Your task to perform on an android device: Go to accessibility settings Image 0: 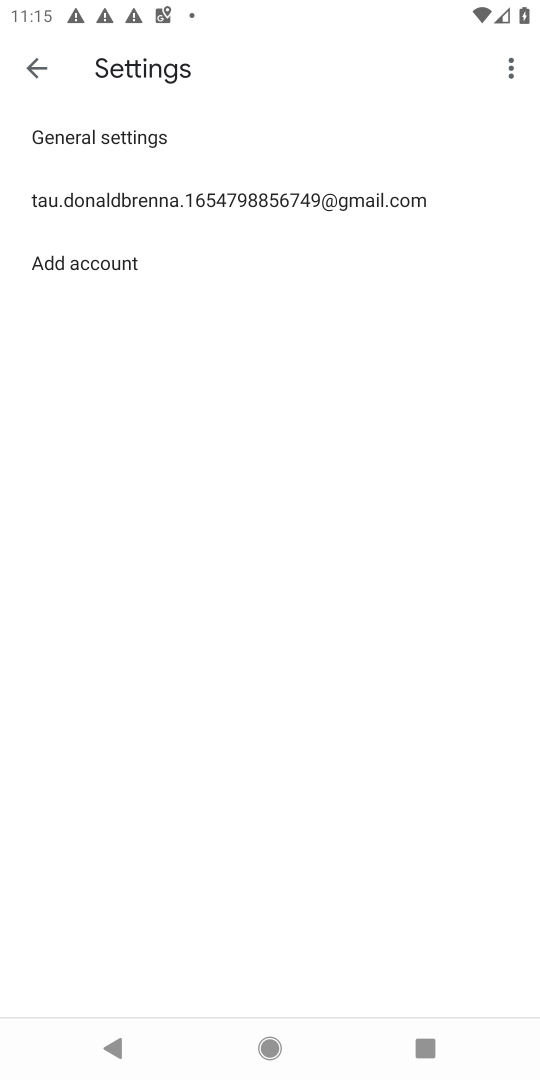
Step 0: press home button
Your task to perform on an android device: Go to accessibility settings Image 1: 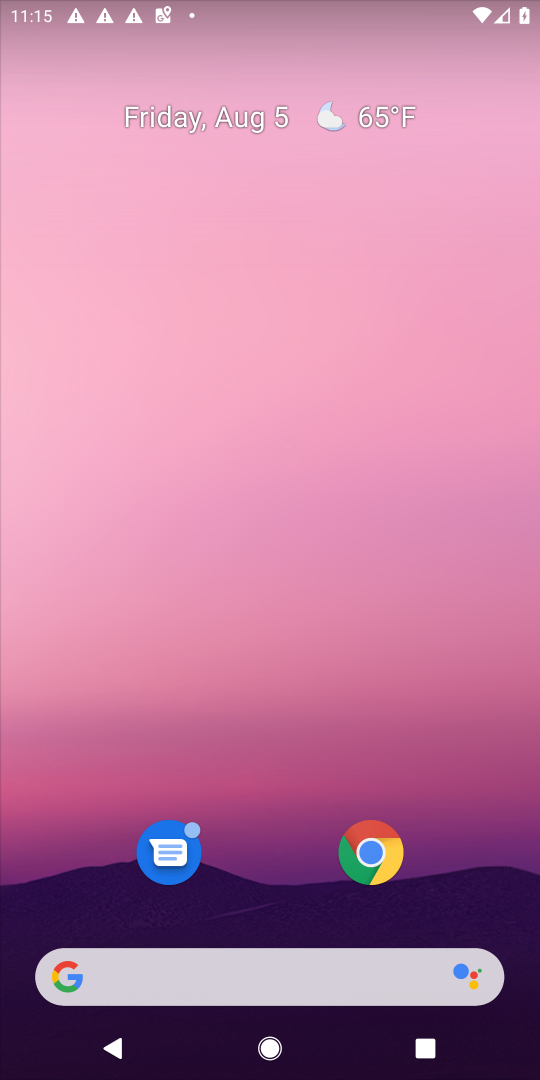
Step 1: drag from (307, 902) to (395, 225)
Your task to perform on an android device: Go to accessibility settings Image 2: 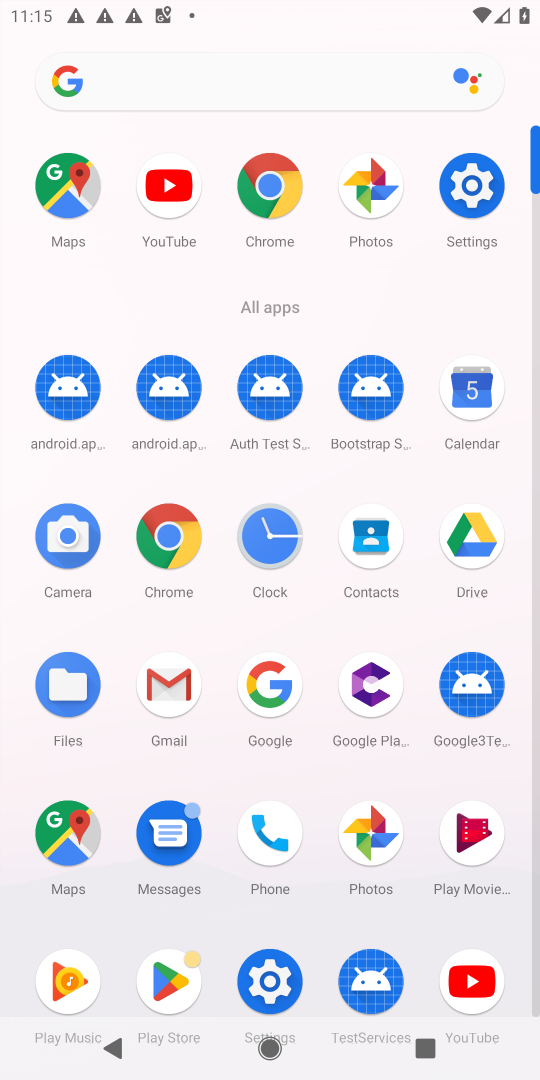
Step 2: click (453, 181)
Your task to perform on an android device: Go to accessibility settings Image 3: 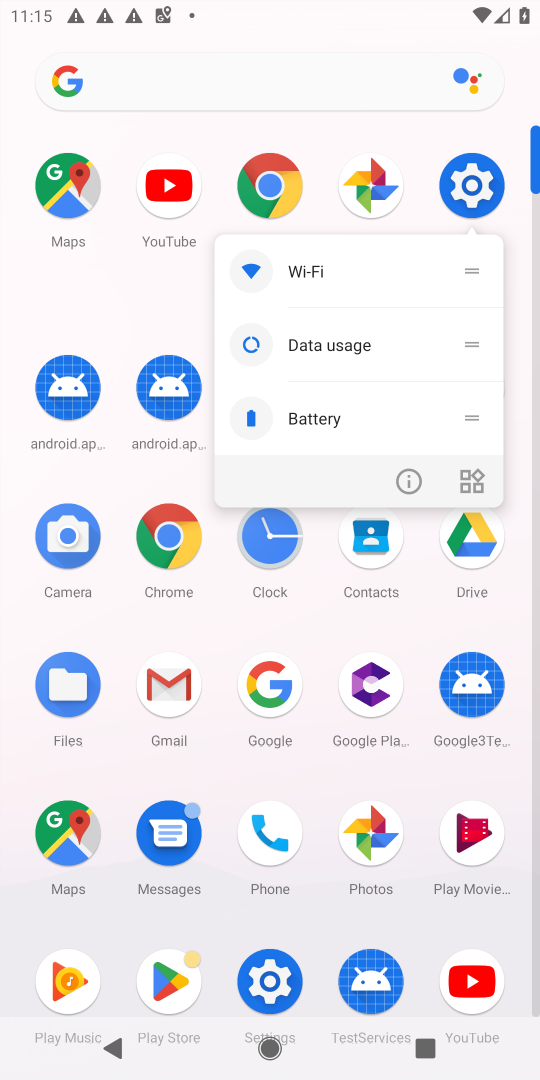
Step 3: click (477, 197)
Your task to perform on an android device: Go to accessibility settings Image 4: 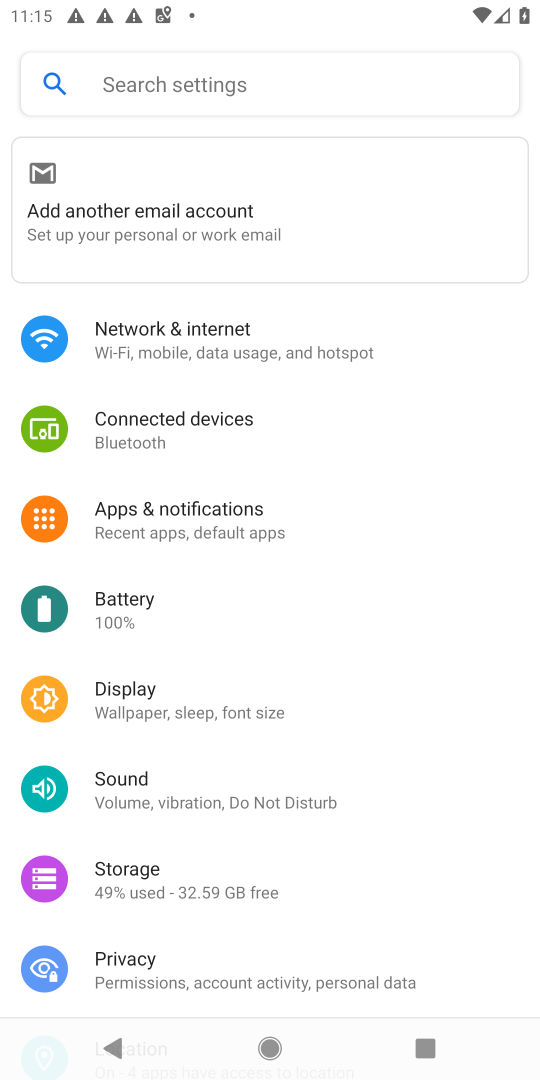
Step 4: click (185, 83)
Your task to perform on an android device: Go to accessibility settings Image 5: 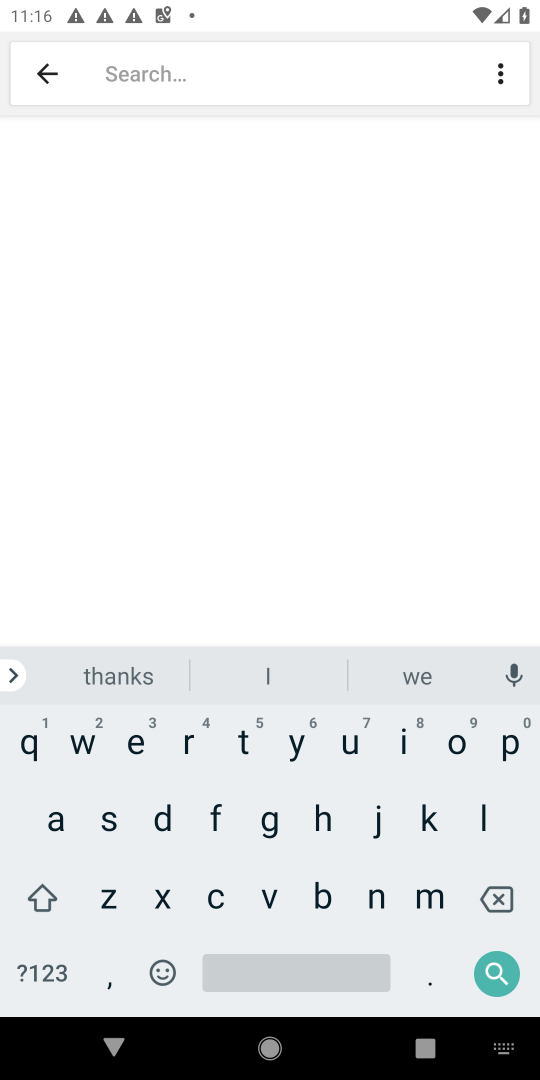
Step 5: type "ac"
Your task to perform on an android device: Go to accessibility settings Image 6: 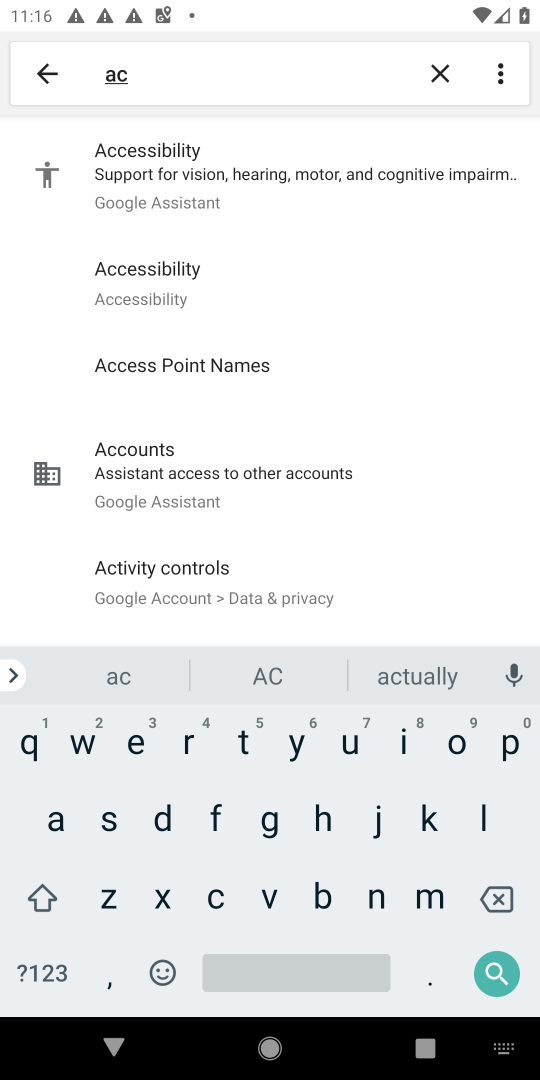
Step 6: click (172, 191)
Your task to perform on an android device: Go to accessibility settings Image 7: 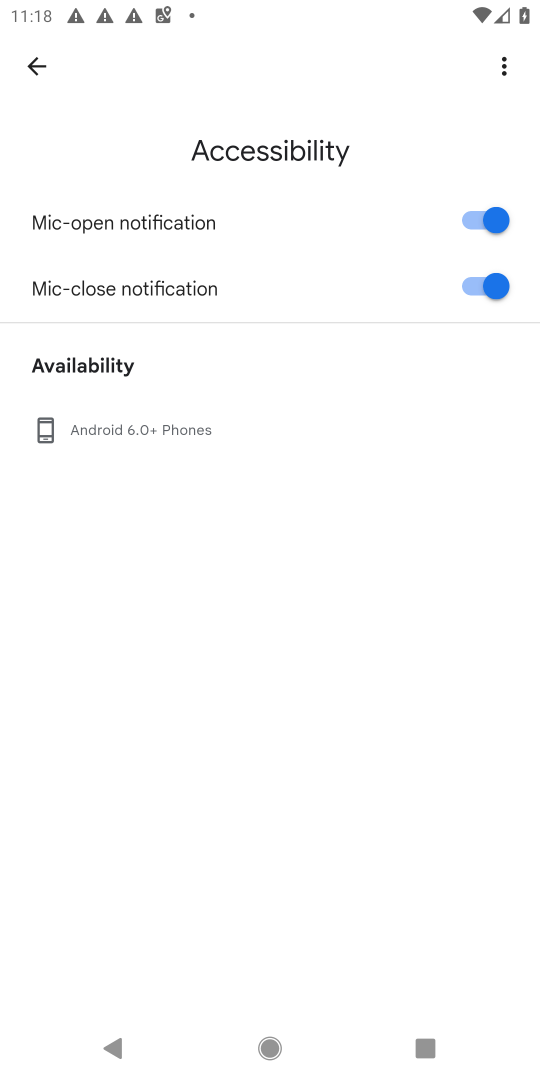
Step 7: task complete